Your task to perform on an android device: delete location history Image 0: 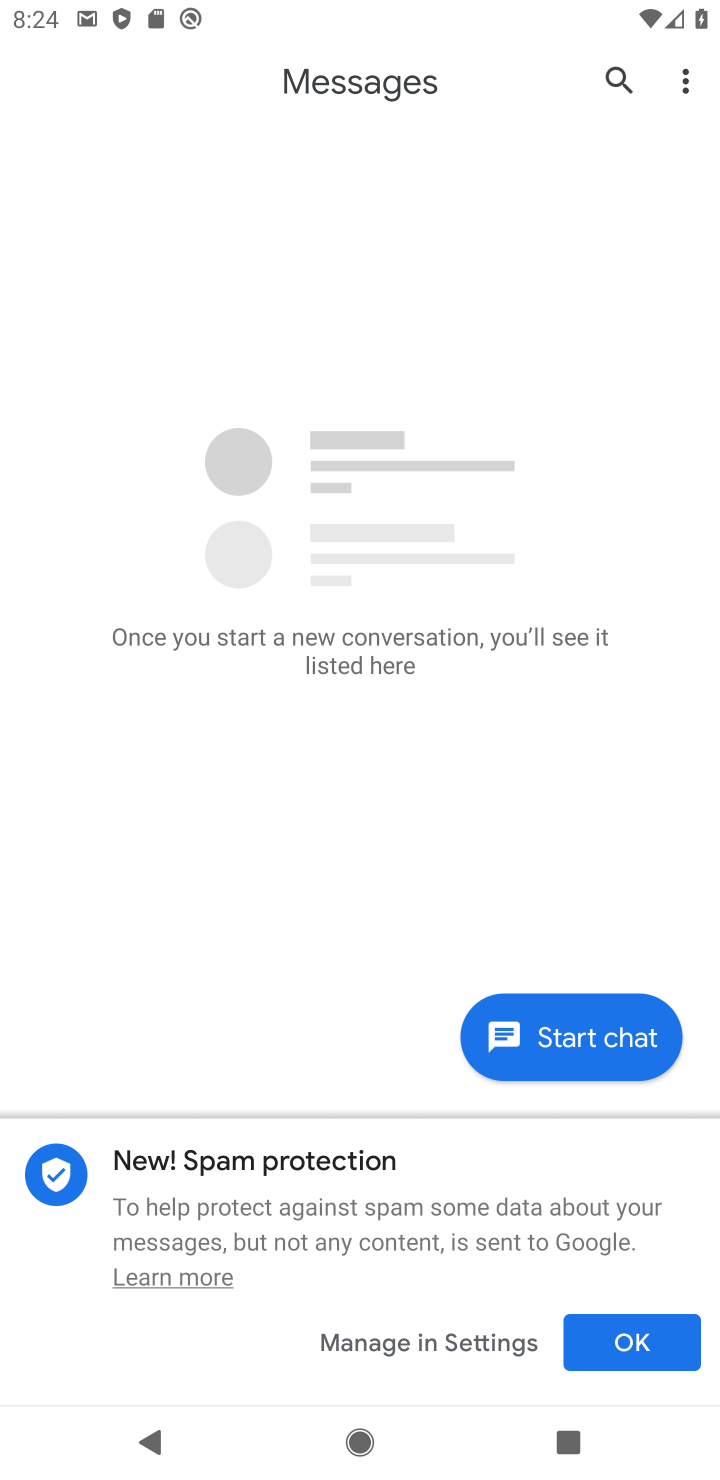
Step 0: press home button
Your task to perform on an android device: delete location history Image 1: 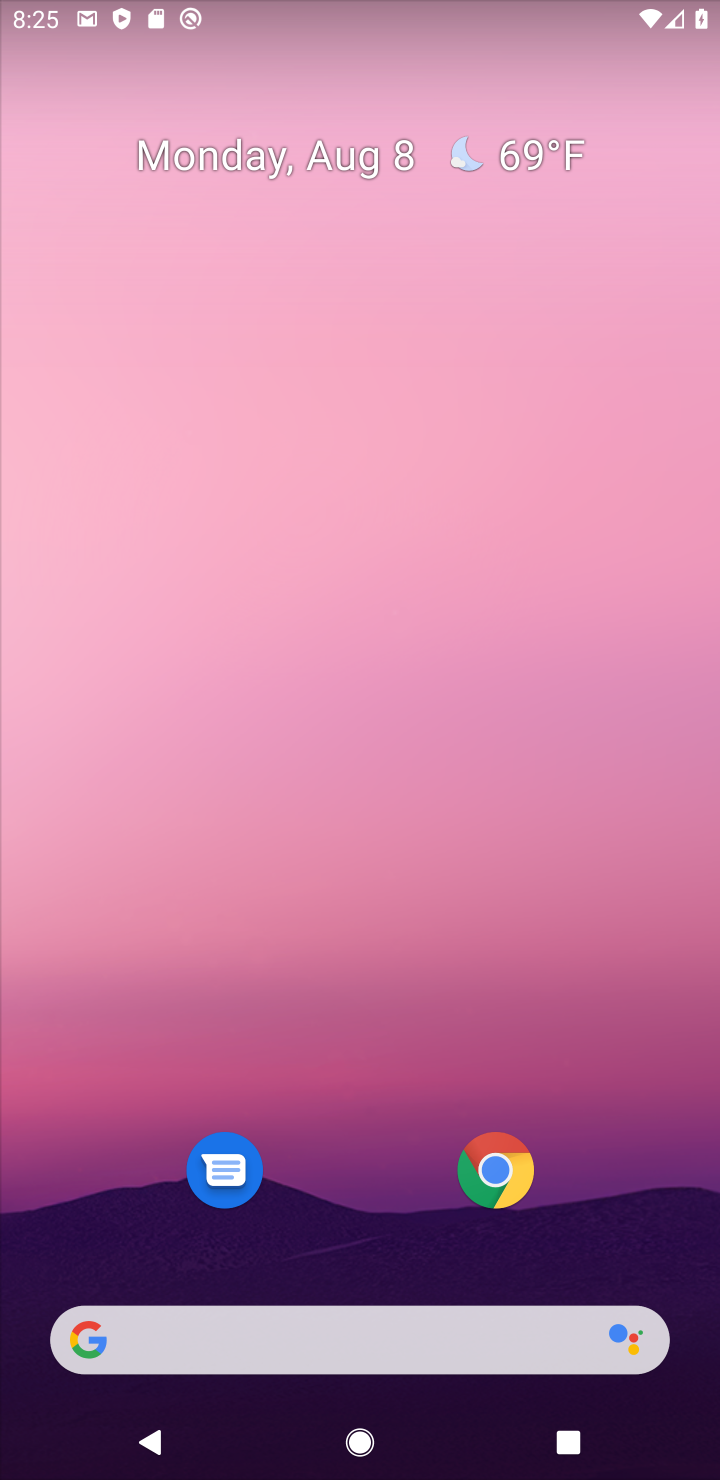
Step 1: drag from (681, 1214) to (552, 344)
Your task to perform on an android device: delete location history Image 2: 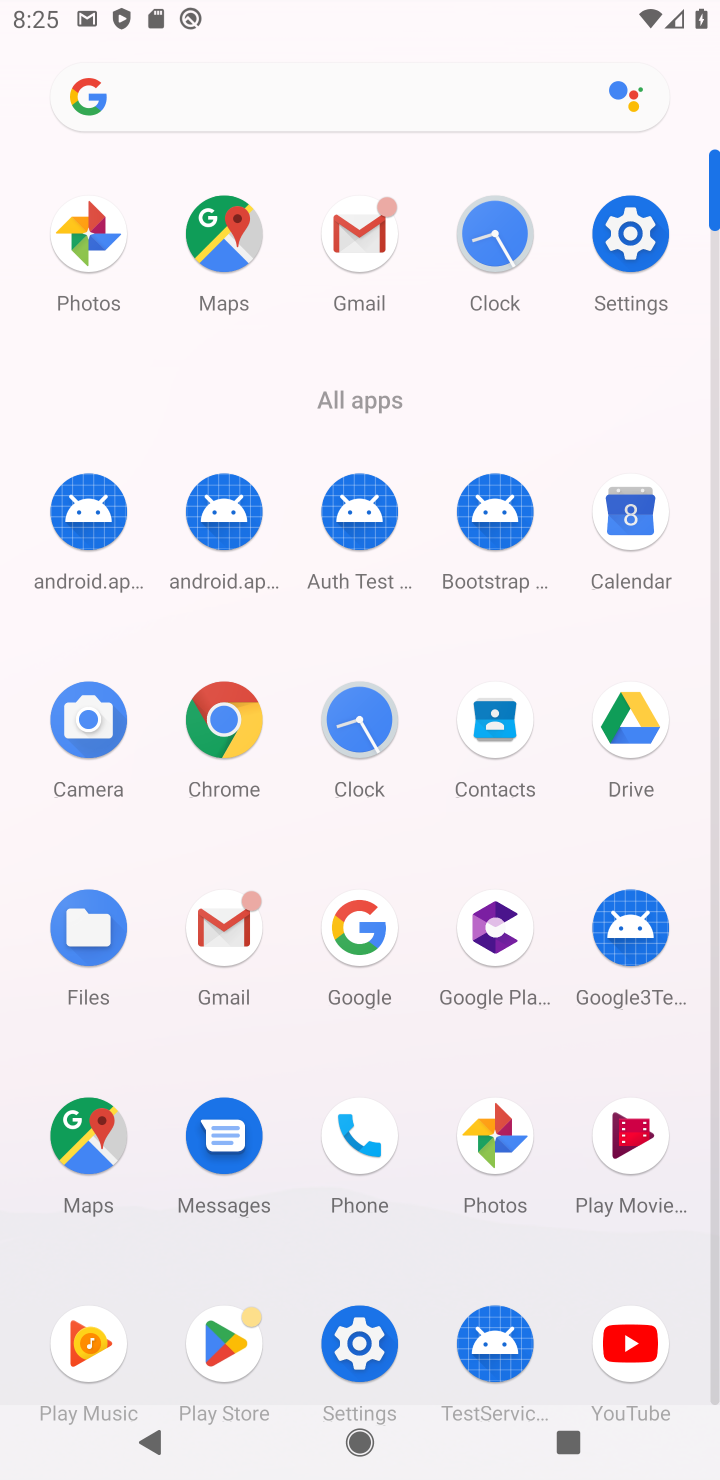
Step 2: click (91, 1140)
Your task to perform on an android device: delete location history Image 3: 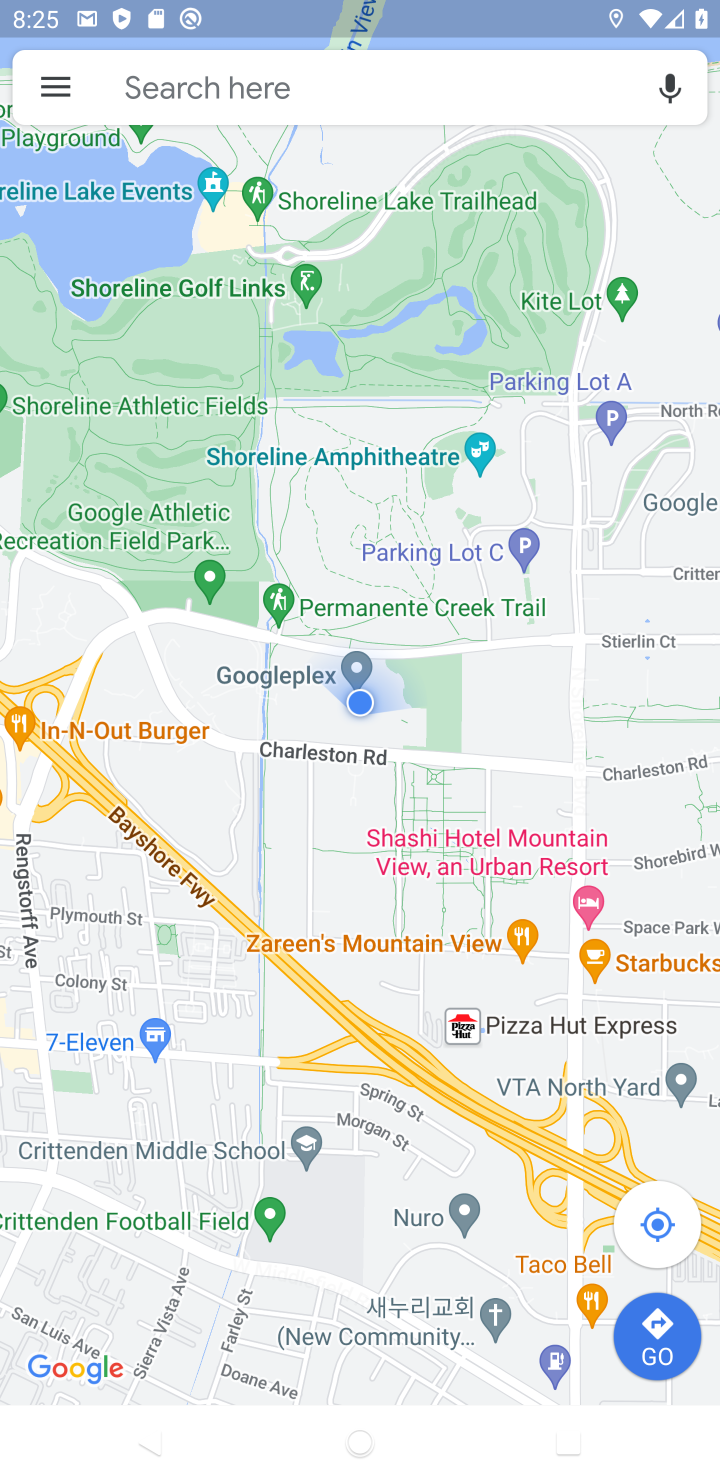
Step 3: click (47, 61)
Your task to perform on an android device: delete location history Image 4: 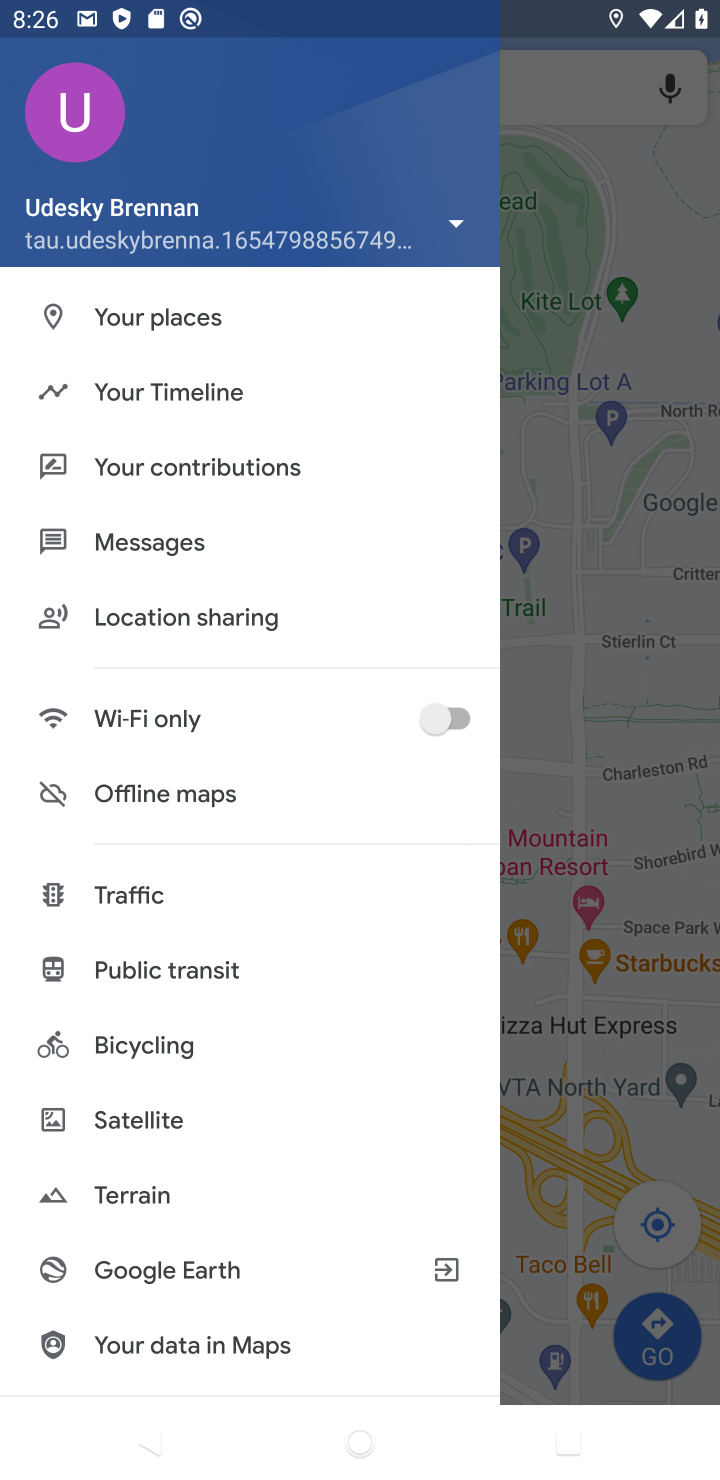
Step 4: click (224, 402)
Your task to perform on an android device: delete location history Image 5: 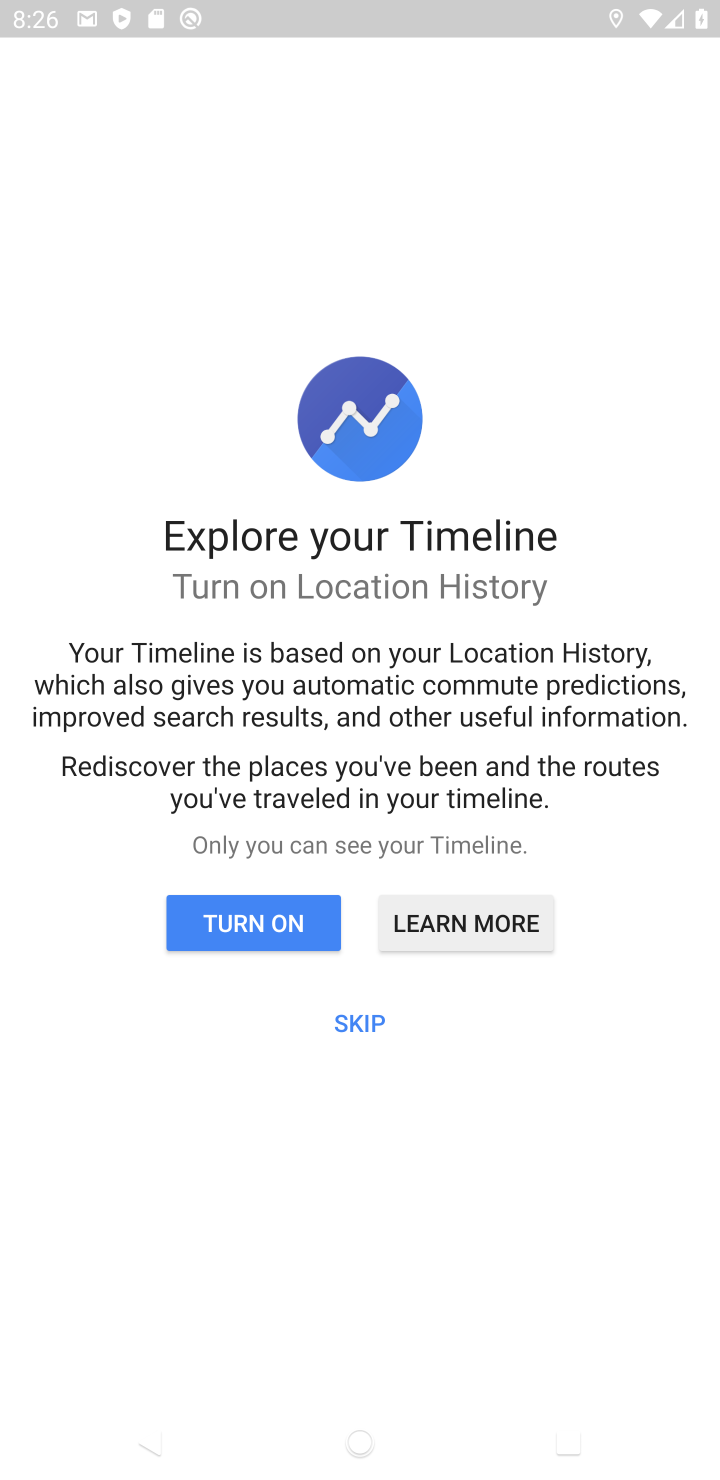
Step 5: click (349, 1015)
Your task to perform on an android device: delete location history Image 6: 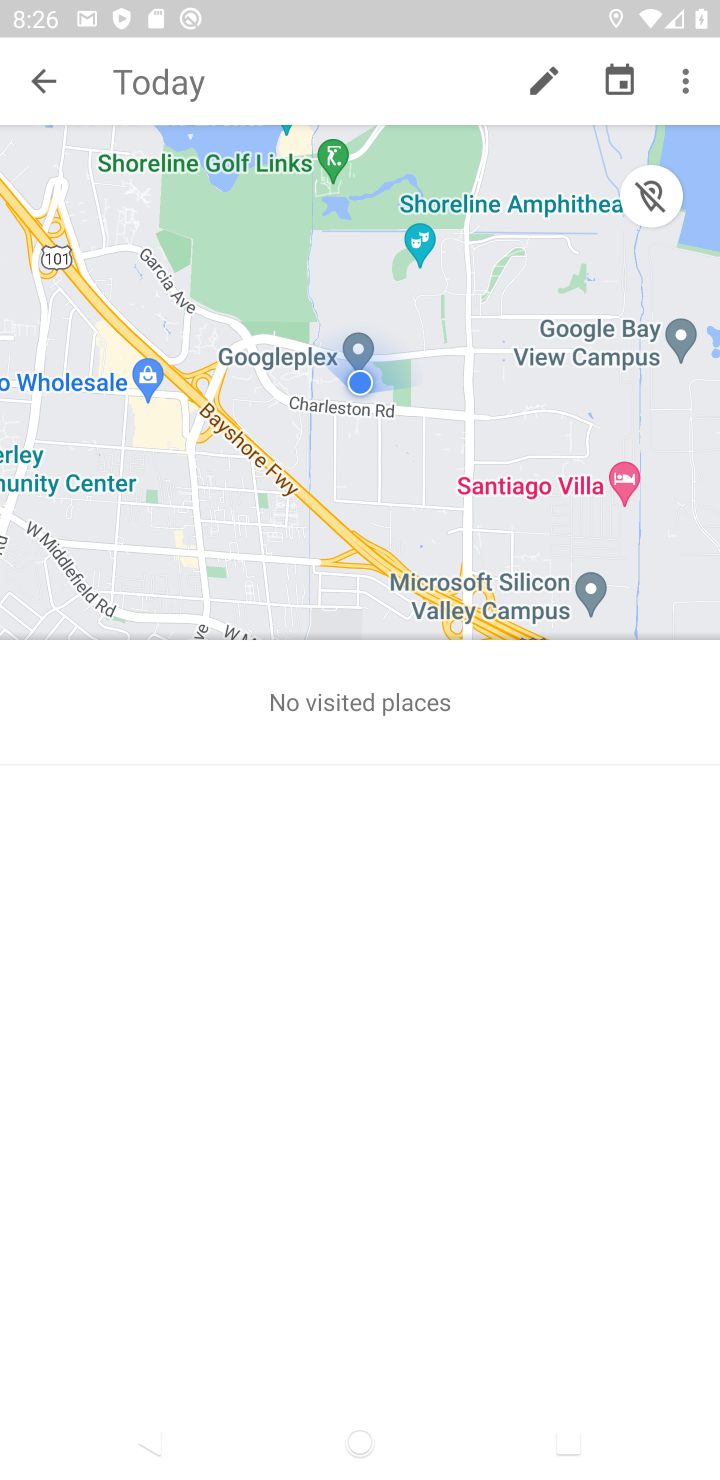
Step 6: click (677, 91)
Your task to perform on an android device: delete location history Image 7: 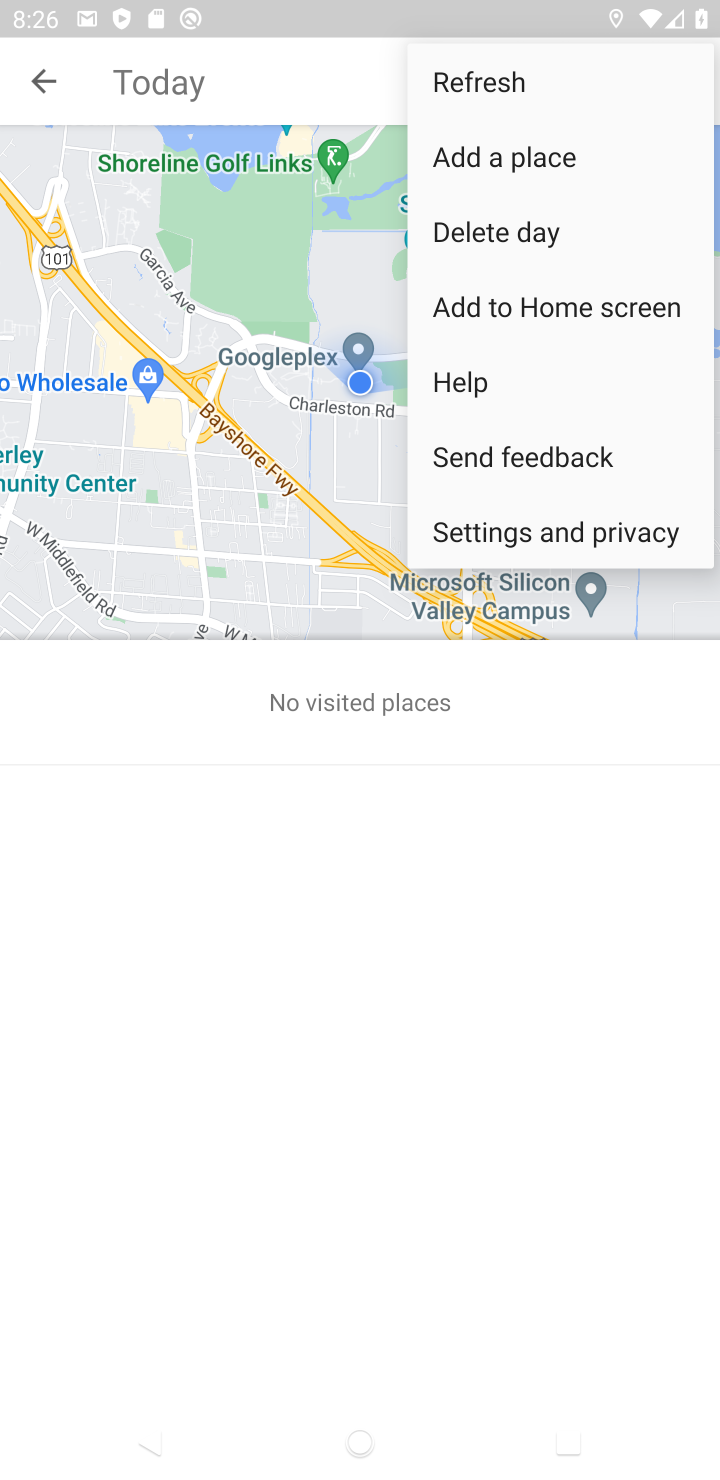
Step 7: click (533, 244)
Your task to perform on an android device: delete location history Image 8: 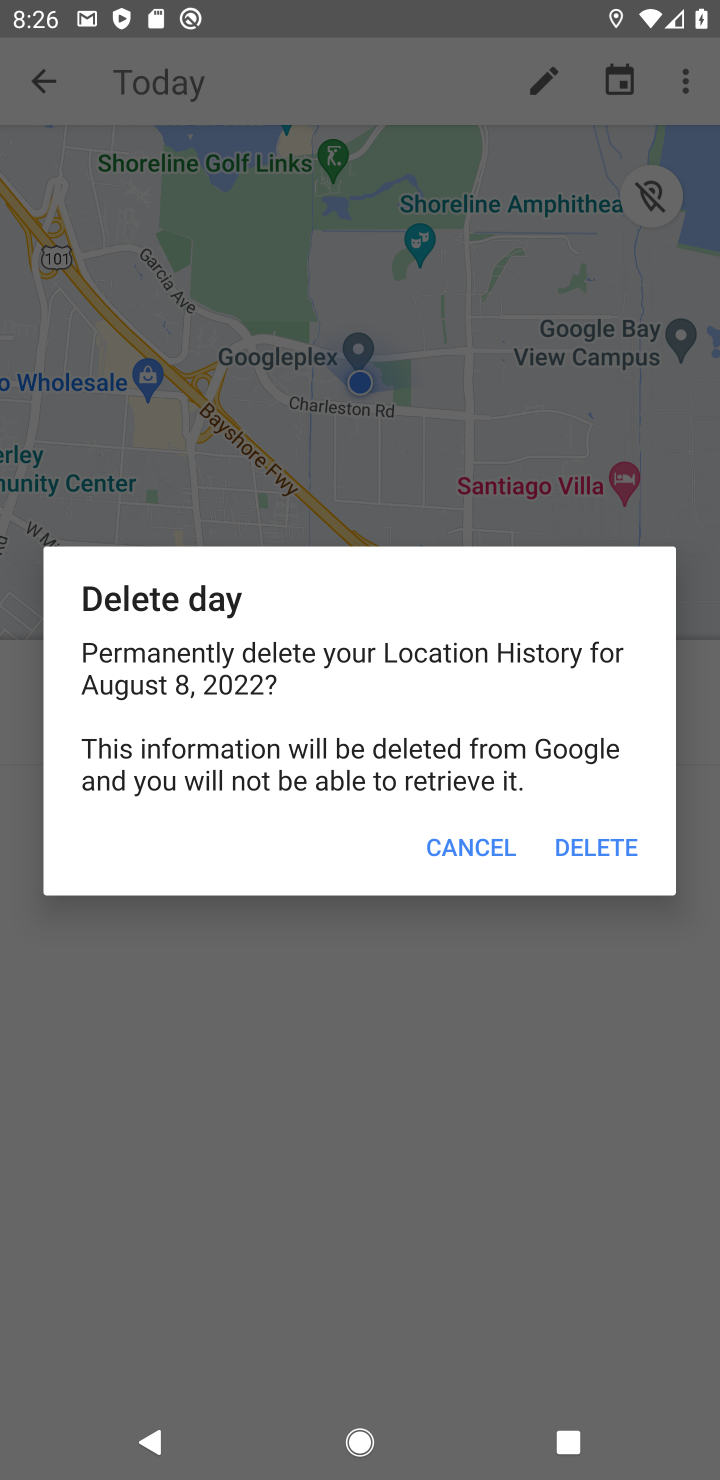
Step 8: click (613, 844)
Your task to perform on an android device: delete location history Image 9: 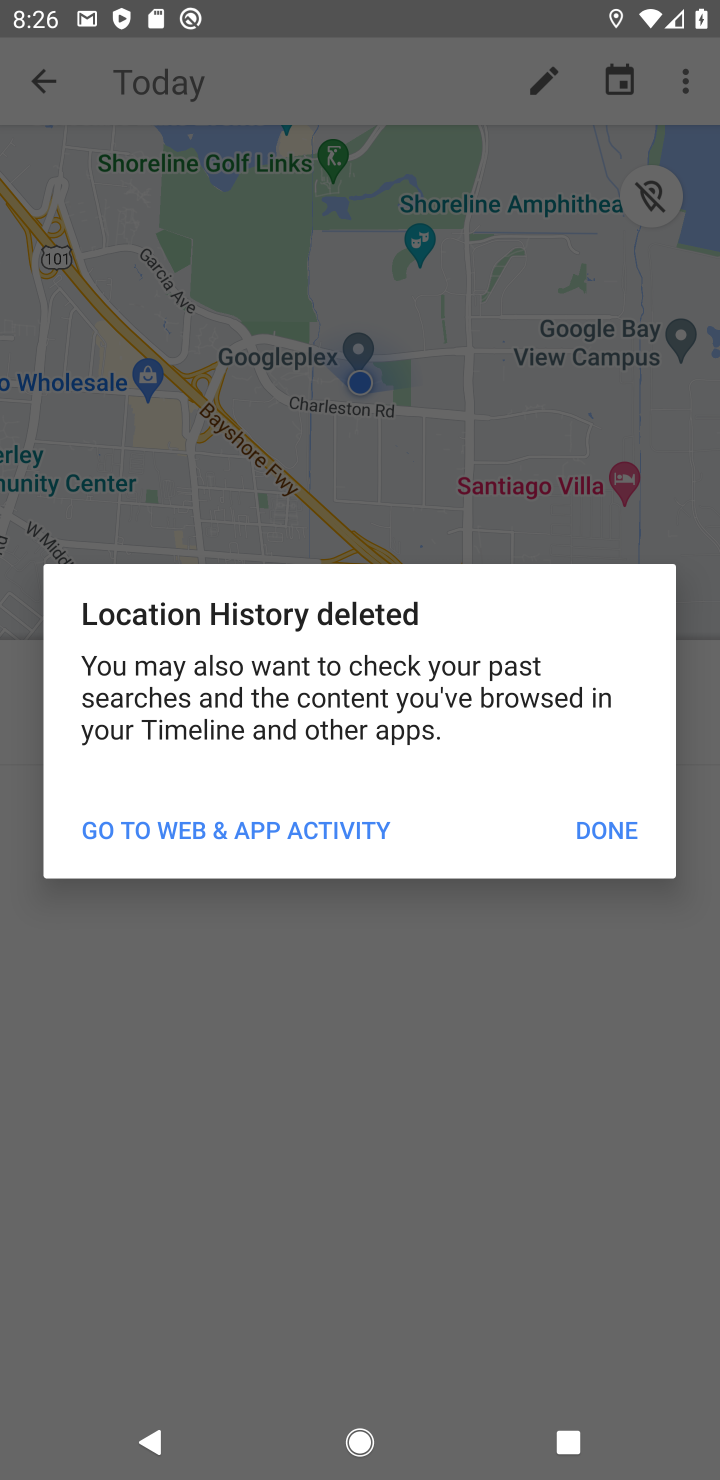
Step 9: click (625, 830)
Your task to perform on an android device: delete location history Image 10: 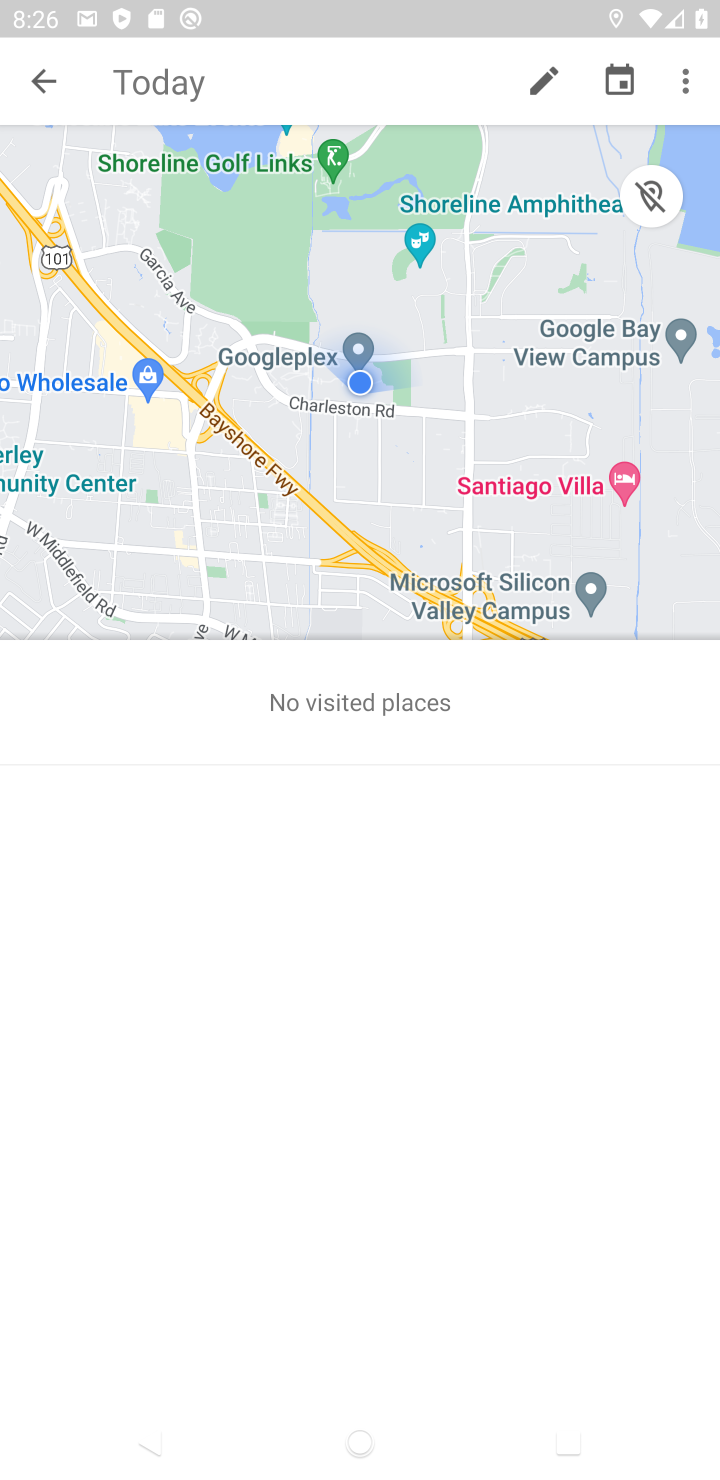
Step 10: task complete